Your task to perform on an android device: clear history in the chrome app Image 0: 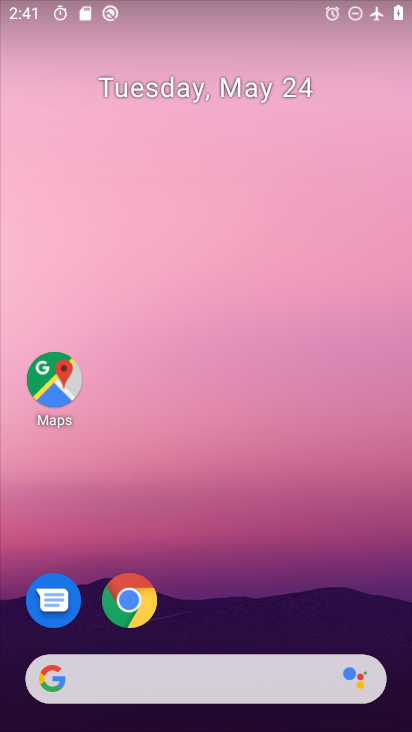
Step 0: click (125, 603)
Your task to perform on an android device: clear history in the chrome app Image 1: 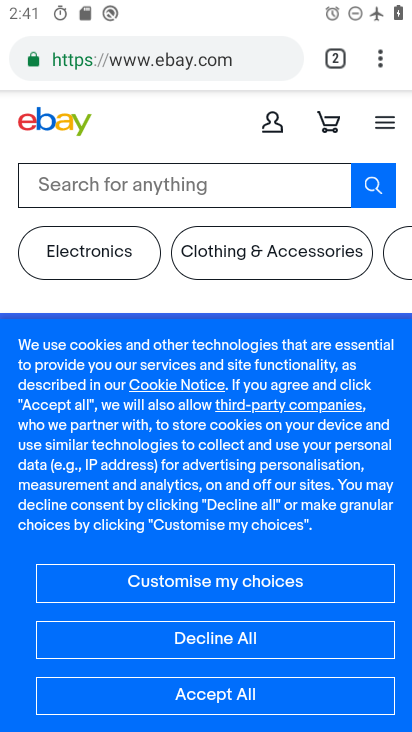
Step 1: click (385, 56)
Your task to perform on an android device: clear history in the chrome app Image 2: 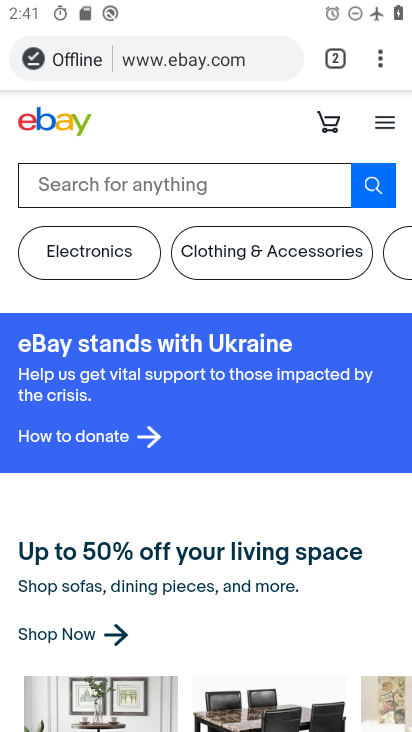
Step 2: drag from (385, 57) to (188, 344)
Your task to perform on an android device: clear history in the chrome app Image 3: 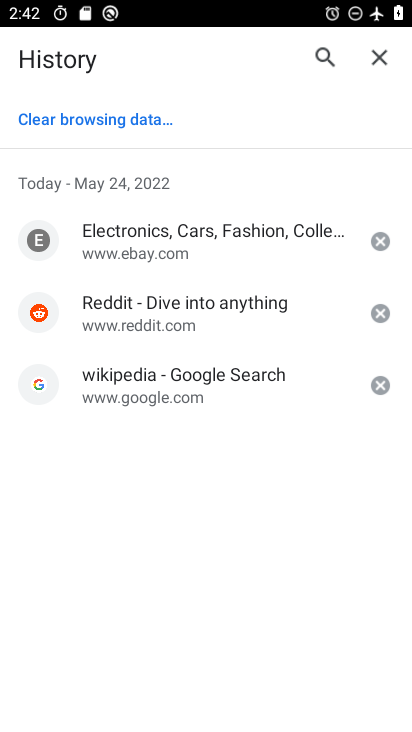
Step 3: click (90, 117)
Your task to perform on an android device: clear history in the chrome app Image 4: 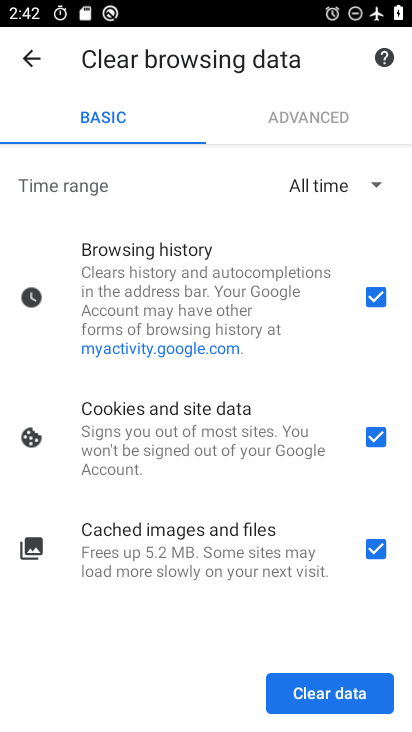
Step 4: click (336, 669)
Your task to perform on an android device: clear history in the chrome app Image 5: 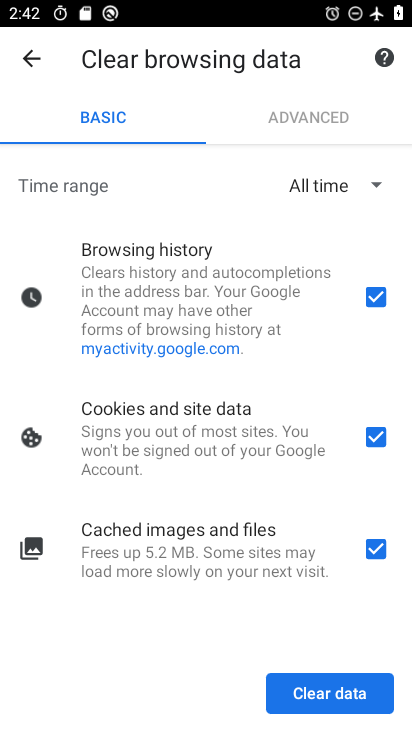
Step 5: click (340, 688)
Your task to perform on an android device: clear history in the chrome app Image 6: 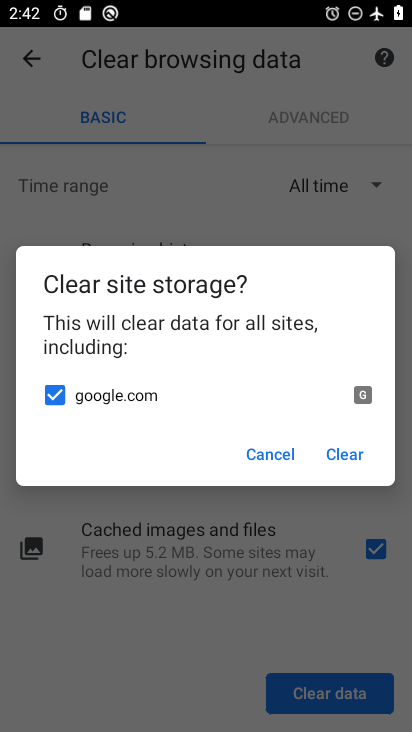
Step 6: click (347, 459)
Your task to perform on an android device: clear history in the chrome app Image 7: 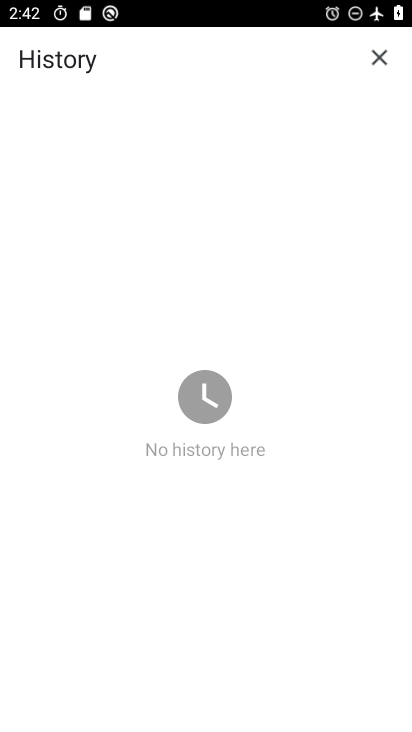
Step 7: task complete